Your task to perform on an android device: delete browsing data in the chrome app Image 0: 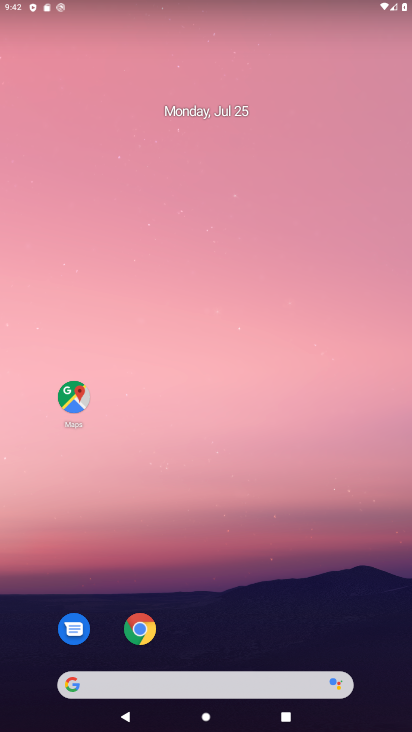
Step 0: drag from (260, 462) to (270, 15)
Your task to perform on an android device: delete browsing data in the chrome app Image 1: 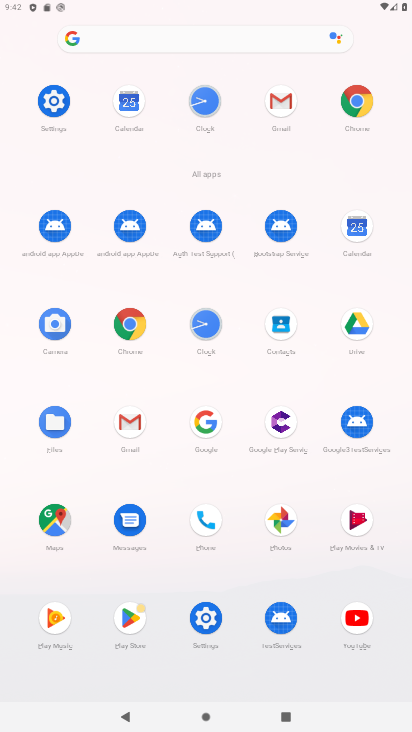
Step 1: click (352, 105)
Your task to perform on an android device: delete browsing data in the chrome app Image 2: 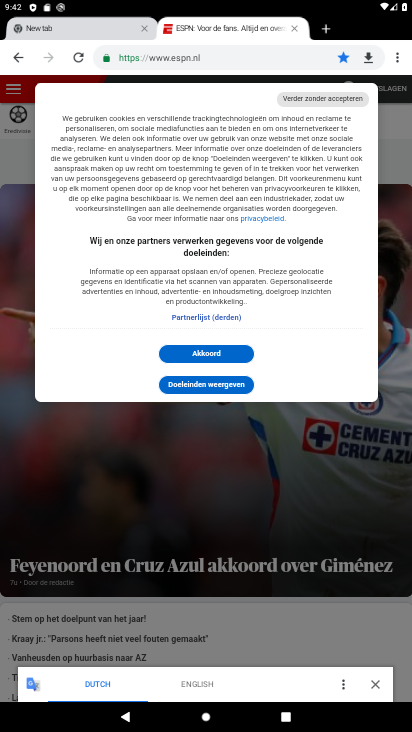
Step 2: drag from (403, 48) to (288, 175)
Your task to perform on an android device: delete browsing data in the chrome app Image 3: 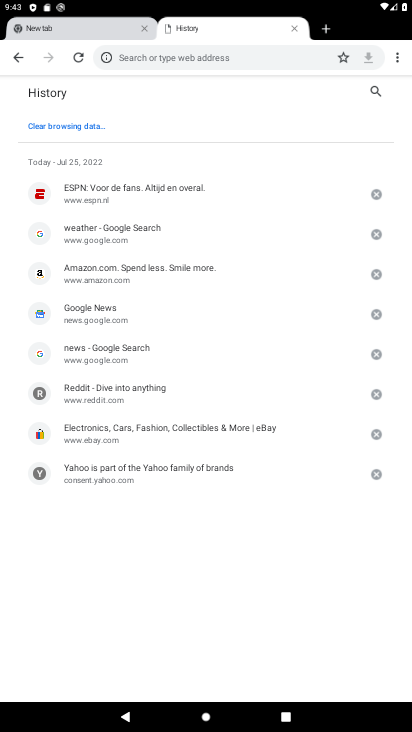
Step 3: click (82, 128)
Your task to perform on an android device: delete browsing data in the chrome app Image 4: 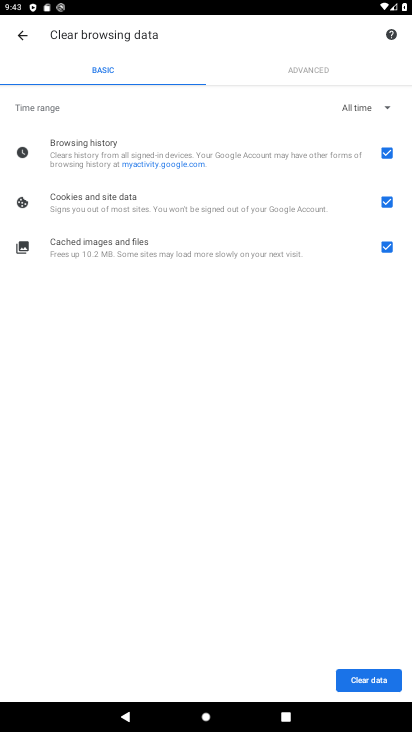
Step 4: click (368, 676)
Your task to perform on an android device: delete browsing data in the chrome app Image 5: 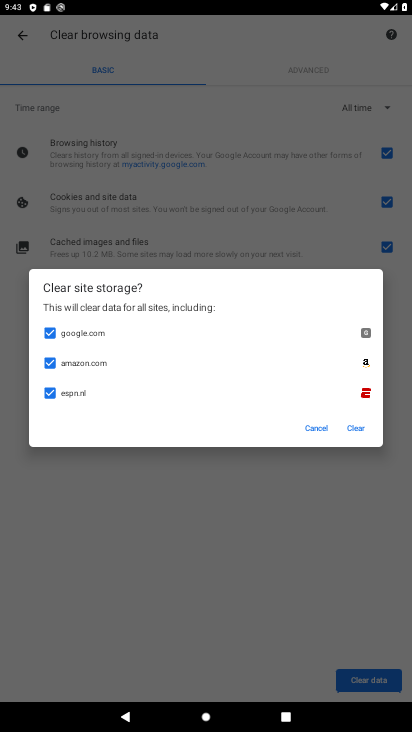
Step 5: click (358, 423)
Your task to perform on an android device: delete browsing data in the chrome app Image 6: 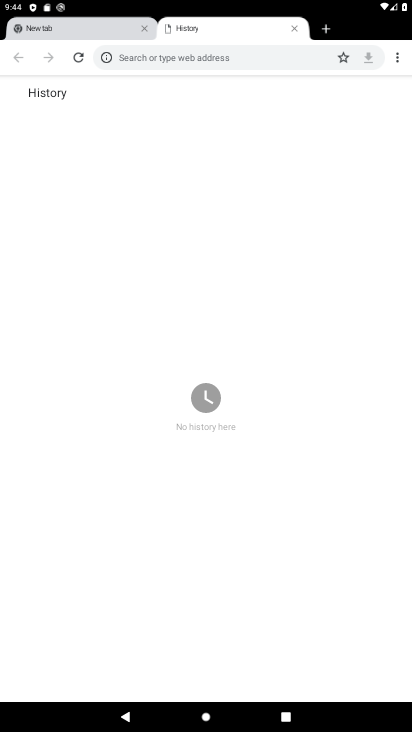
Step 6: task complete